Your task to perform on an android device: add a contact in the contacts app Image 0: 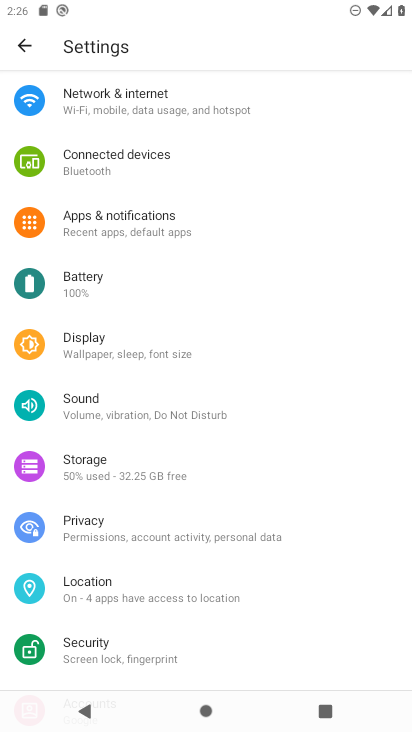
Step 0: press home button
Your task to perform on an android device: add a contact in the contacts app Image 1: 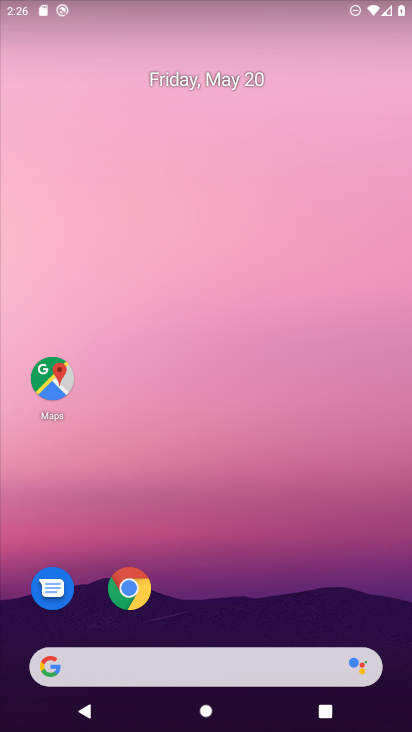
Step 1: drag from (376, 623) to (351, 121)
Your task to perform on an android device: add a contact in the contacts app Image 2: 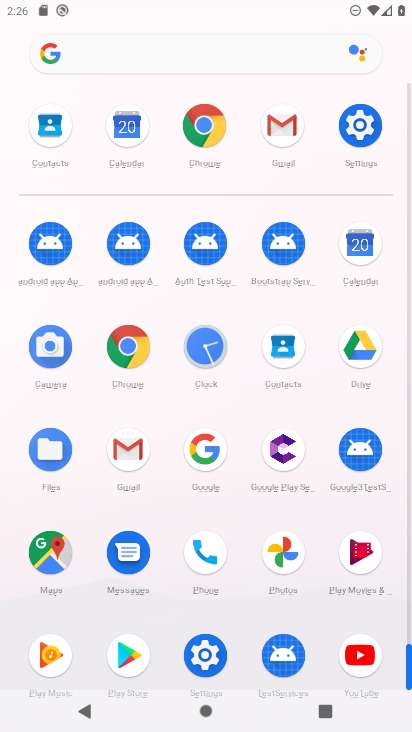
Step 2: click (280, 347)
Your task to perform on an android device: add a contact in the contacts app Image 3: 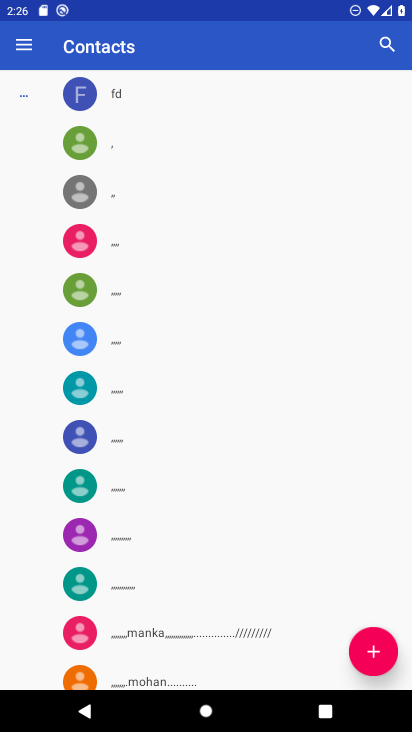
Step 3: click (374, 653)
Your task to perform on an android device: add a contact in the contacts app Image 4: 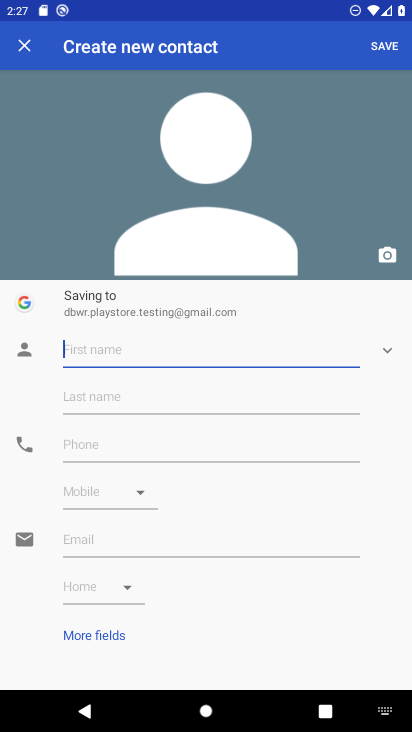
Step 4: type "ljjhfdsaasdfgn"
Your task to perform on an android device: add a contact in the contacts app Image 5: 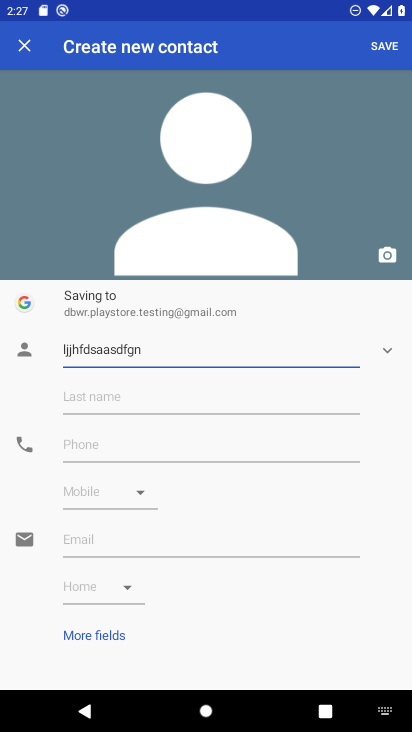
Step 5: click (106, 443)
Your task to perform on an android device: add a contact in the contacts app Image 6: 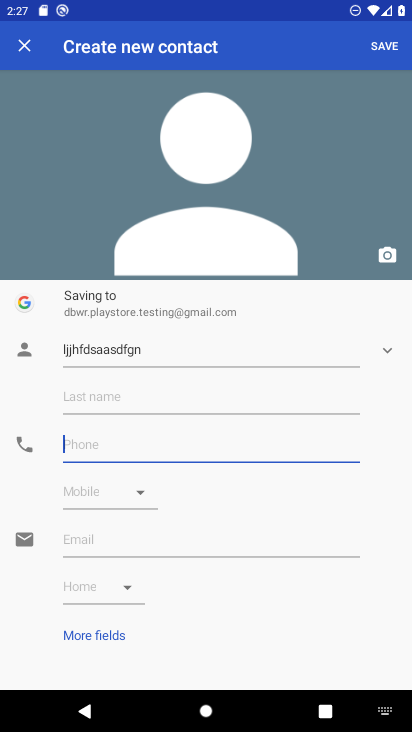
Step 6: type "908343466"
Your task to perform on an android device: add a contact in the contacts app Image 7: 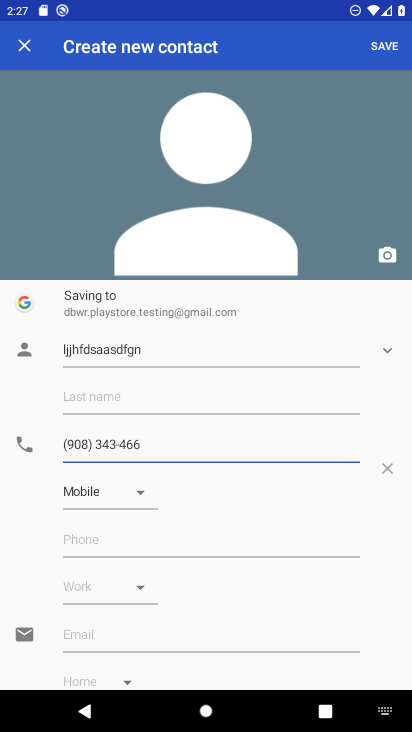
Step 7: click (144, 492)
Your task to perform on an android device: add a contact in the contacts app Image 8: 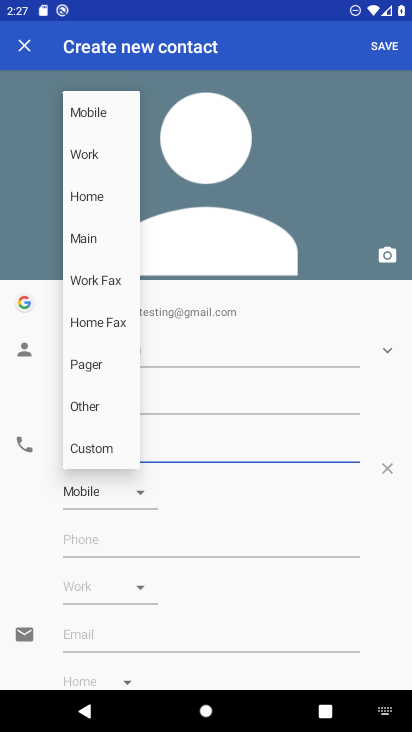
Step 8: click (82, 140)
Your task to perform on an android device: add a contact in the contacts app Image 9: 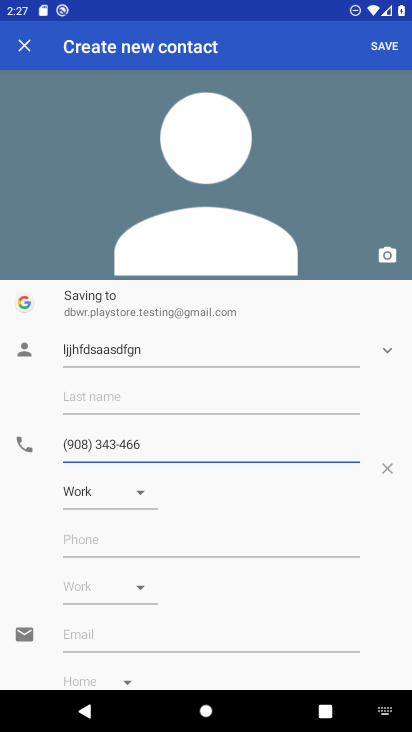
Step 9: click (383, 43)
Your task to perform on an android device: add a contact in the contacts app Image 10: 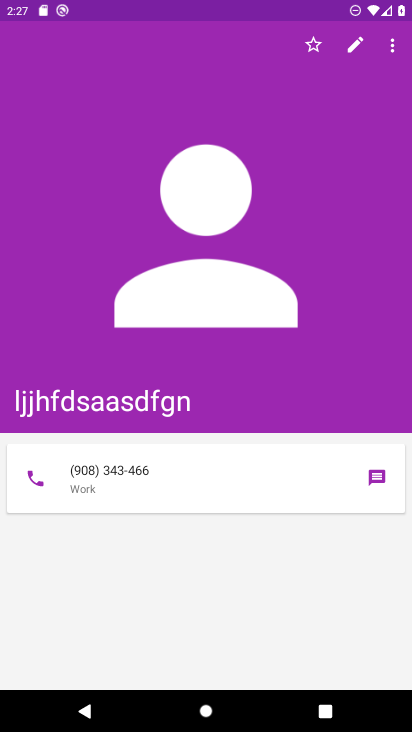
Step 10: task complete